Your task to perform on an android device: turn on priority inbox in the gmail app Image 0: 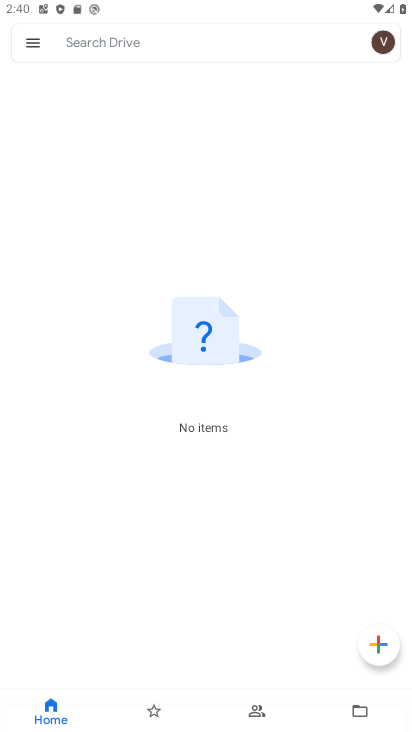
Step 0: press home button
Your task to perform on an android device: turn on priority inbox in the gmail app Image 1: 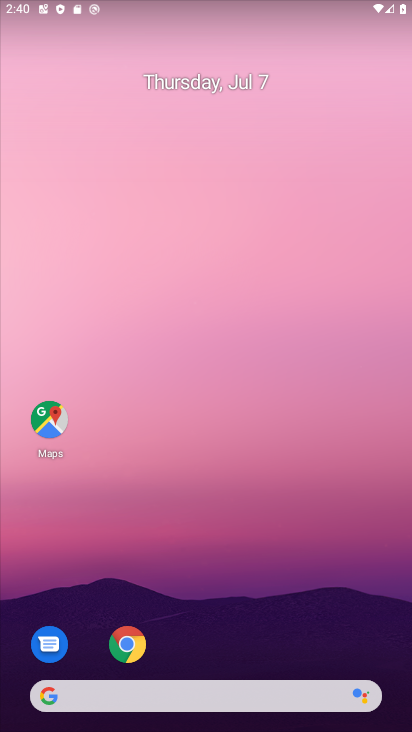
Step 1: drag from (272, 597) to (254, 157)
Your task to perform on an android device: turn on priority inbox in the gmail app Image 2: 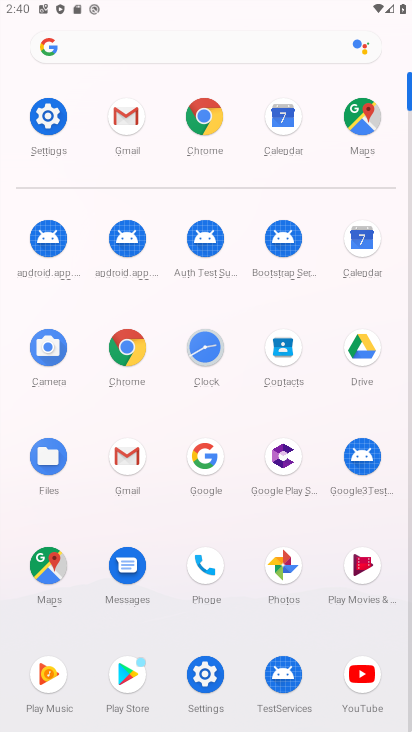
Step 2: click (127, 114)
Your task to perform on an android device: turn on priority inbox in the gmail app Image 3: 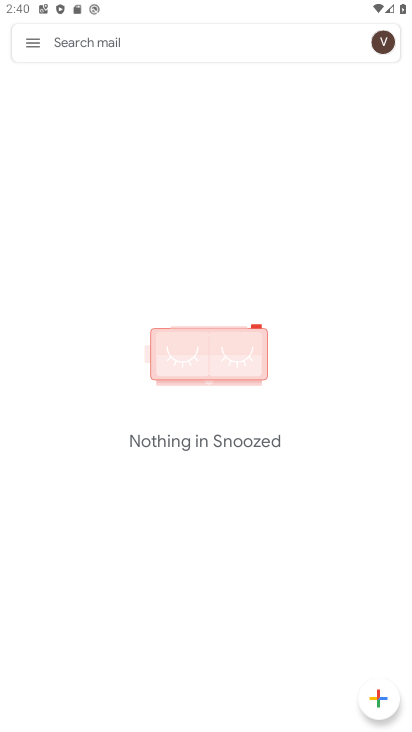
Step 3: click (31, 50)
Your task to perform on an android device: turn on priority inbox in the gmail app Image 4: 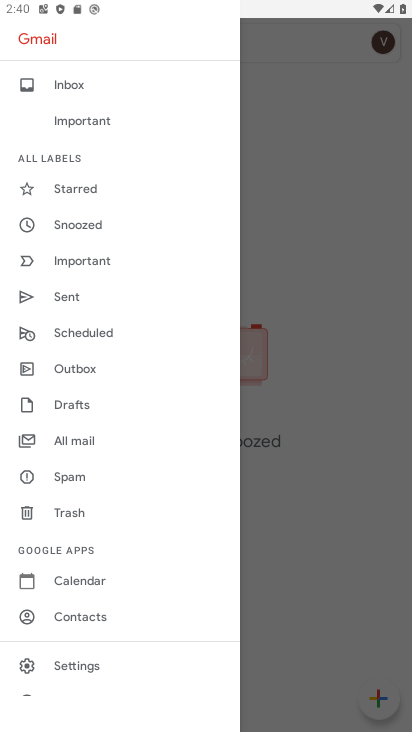
Step 4: click (79, 668)
Your task to perform on an android device: turn on priority inbox in the gmail app Image 5: 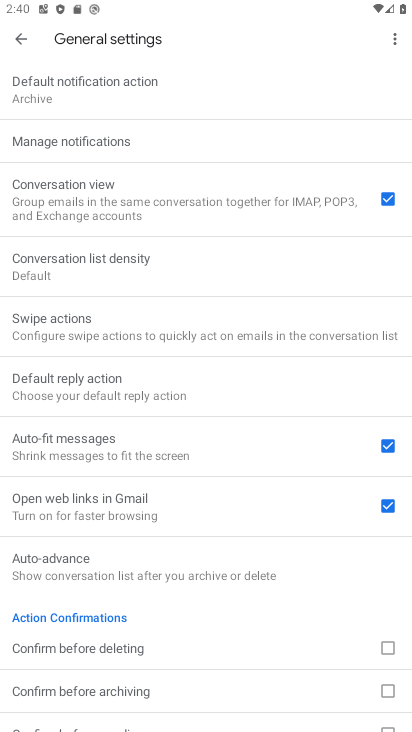
Step 5: click (21, 42)
Your task to perform on an android device: turn on priority inbox in the gmail app Image 6: 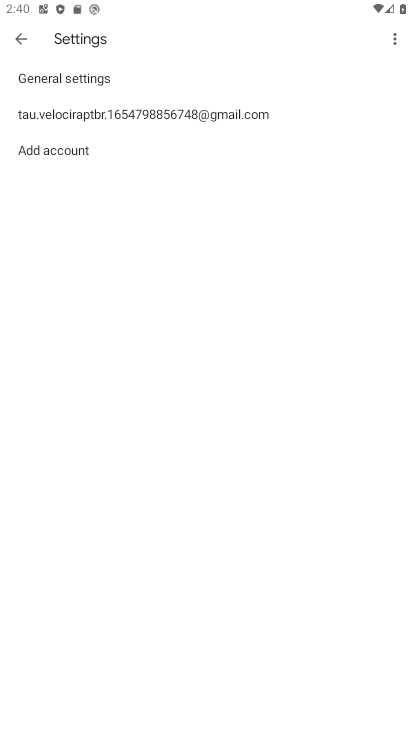
Step 6: click (90, 117)
Your task to perform on an android device: turn on priority inbox in the gmail app Image 7: 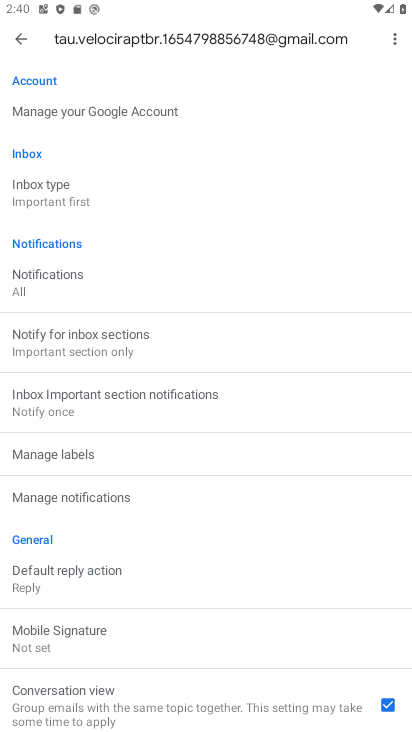
Step 7: click (56, 186)
Your task to perform on an android device: turn on priority inbox in the gmail app Image 8: 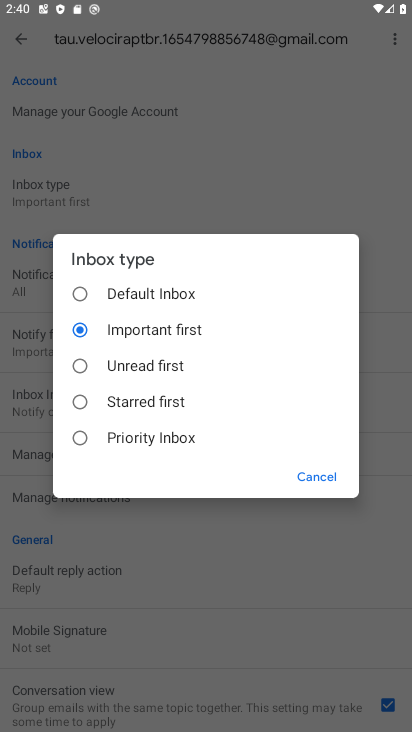
Step 8: click (82, 437)
Your task to perform on an android device: turn on priority inbox in the gmail app Image 9: 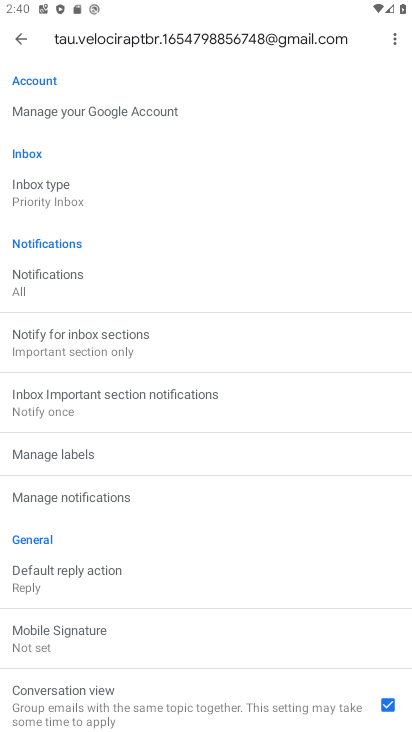
Step 9: task complete